Your task to perform on an android device: Open Android settings Image 0: 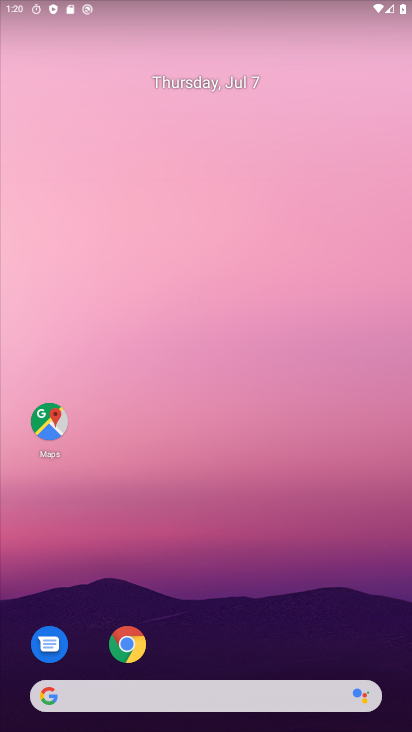
Step 0: drag from (241, 729) to (246, 203)
Your task to perform on an android device: Open Android settings Image 1: 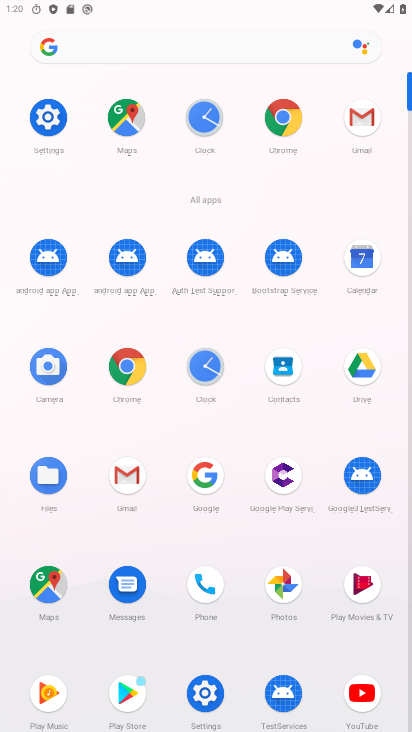
Step 1: click (45, 113)
Your task to perform on an android device: Open Android settings Image 2: 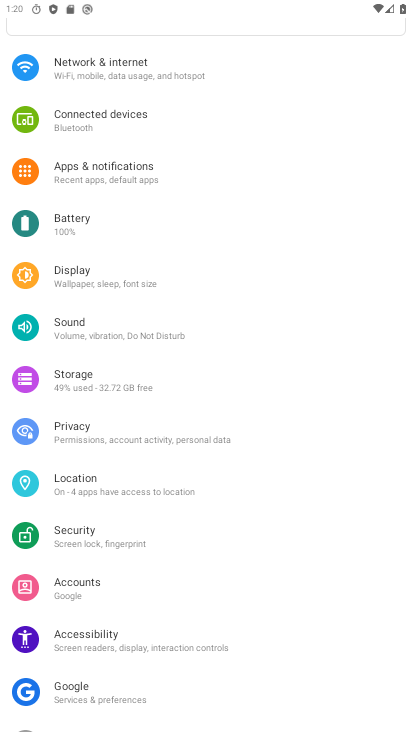
Step 2: task complete